Your task to perform on an android device: turn off improve location accuracy Image 0: 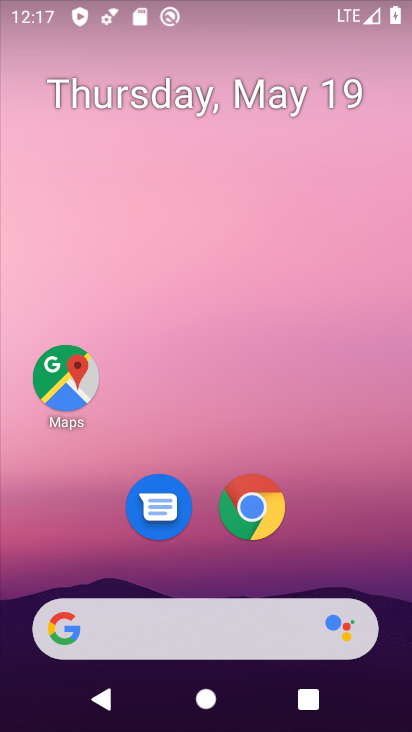
Step 0: drag from (204, 574) to (263, 199)
Your task to perform on an android device: turn off improve location accuracy Image 1: 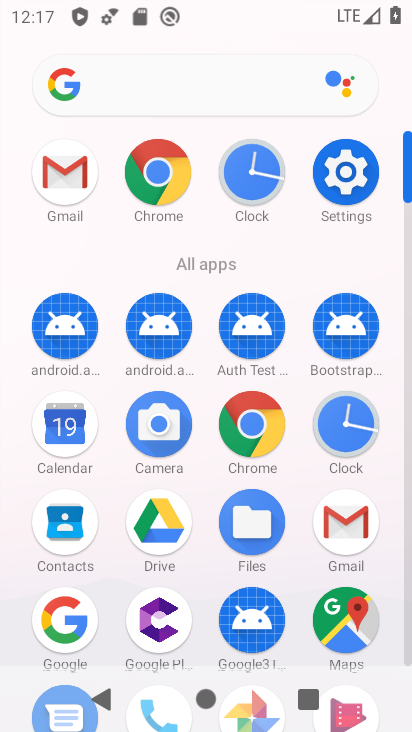
Step 1: click (353, 193)
Your task to perform on an android device: turn off improve location accuracy Image 2: 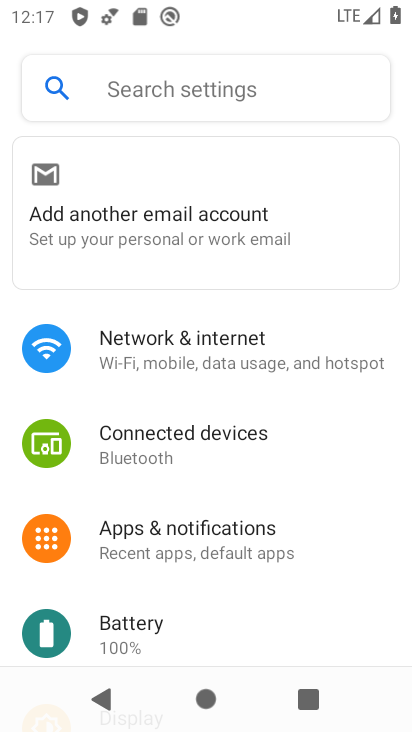
Step 2: drag from (244, 608) to (267, 460)
Your task to perform on an android device: turn off improve location accuracy Image 3: 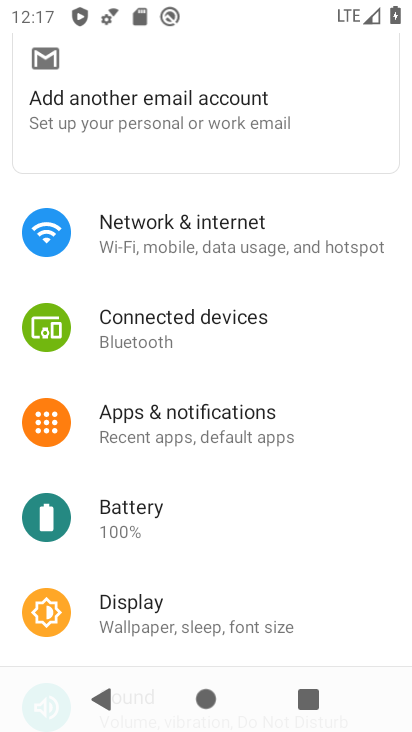
Step 3: drag from (251, 621) to (283, 418)
Your task to perform on an android device: turn off improve location accuracy Image 4: 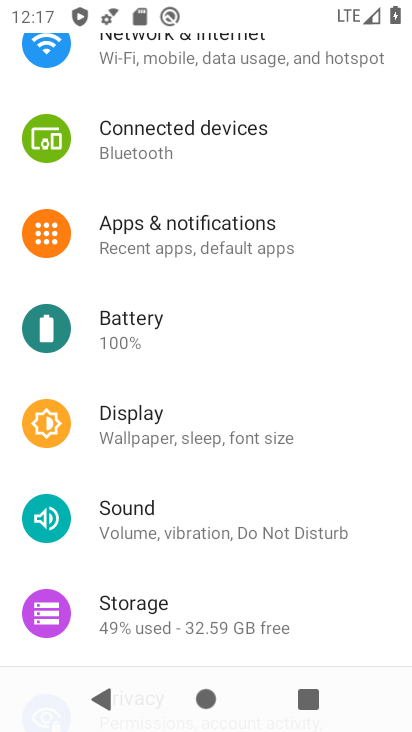
Step 4: drag from (222, 621) to (287, 199)
Your task to perform on an android device: turn off improve location accuracy Image 5: 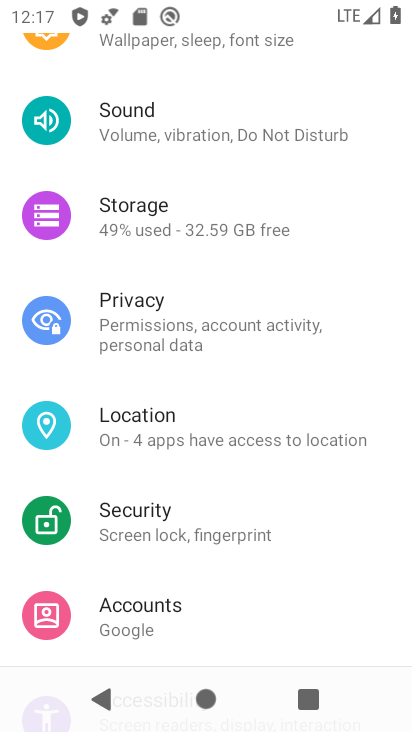
Step 5: click (245, 438)
Your task to perform on an android device: turn off improve location accuracy Image 6: 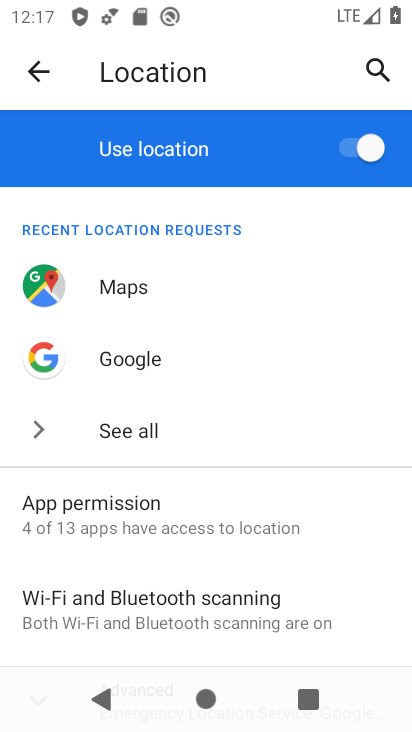
Step 6: drag from (251, 561) to (297, 315)
Your task to perform on an android device: turn off improve location accuracy Image 7: 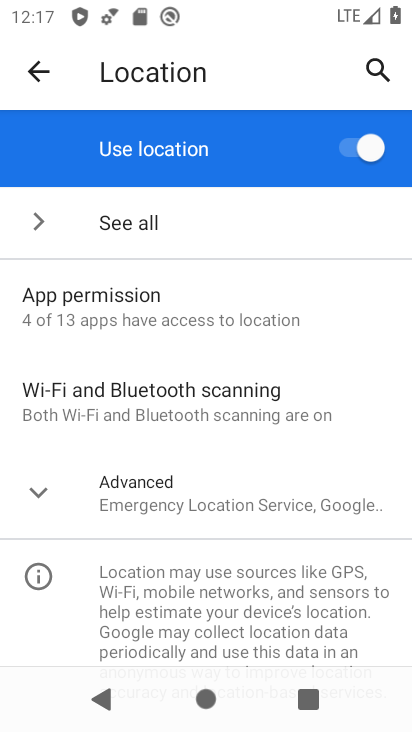
Step 7: click (174, 493)
Your task to perform on an android device: turn off improve location accuracy Image 8: 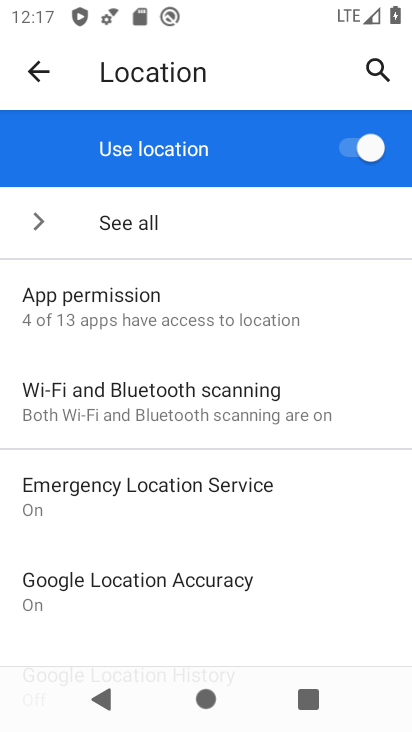
Step 8: click (185, 586)
Your task to perform on an android device: turn off improve location accuracy Image 9: 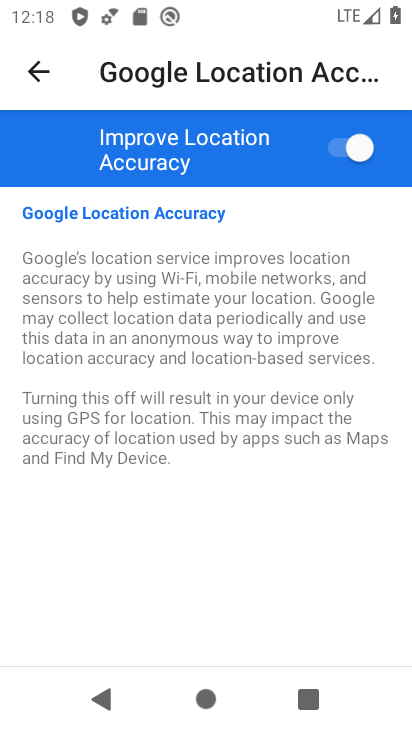
Step 9: click (325, 137)
Your task to perform on an android device: turn off improve location accuracy Image 10: 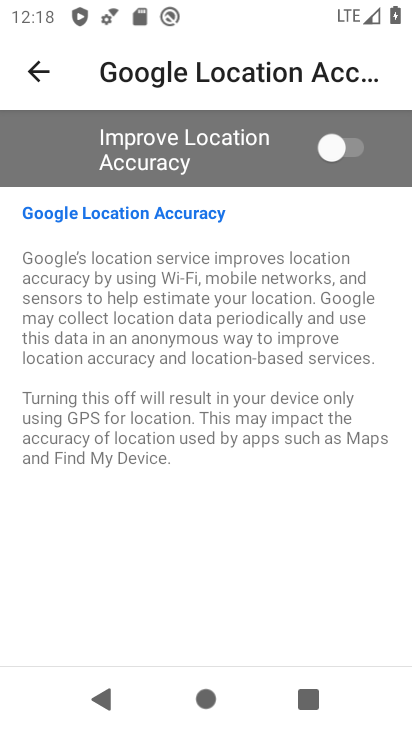
Step 10: task complete